Your task to perform on an android device: make emails show in primary in the gmail app Image 0: 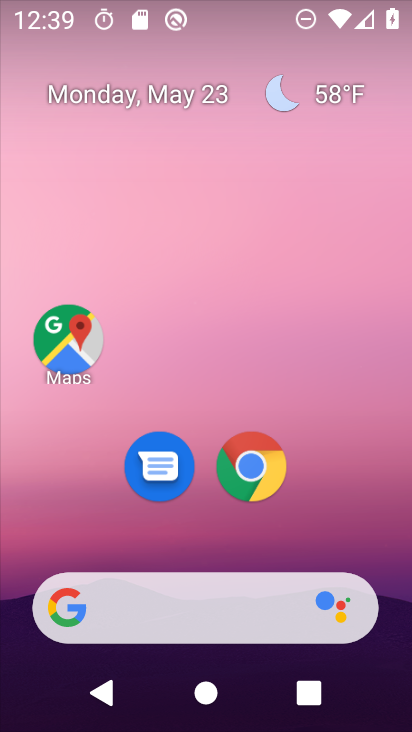
Step 0: drag from (205, 547) to (170, 93)
Your task to perform on an android device: make emails show in primary in the gmail app Image 1: 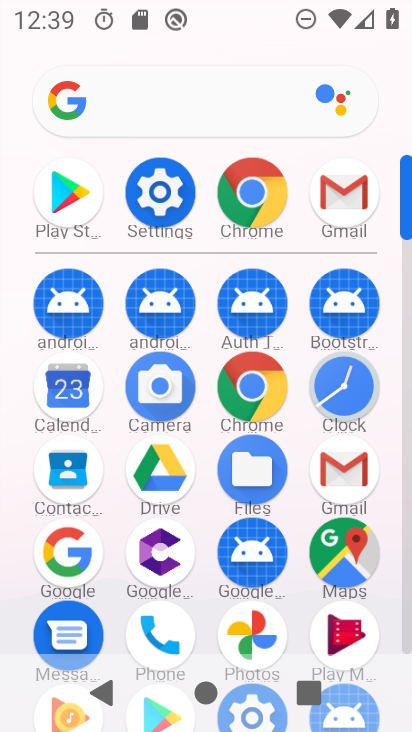
Step 1: click (338, 198)
Your task to perform on an android device: make emails show in primary in the gmail app Image 2: 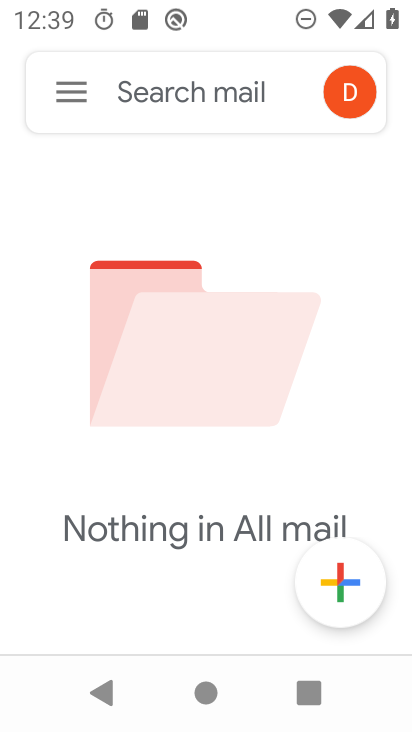
Step 2: click (52, 99)
Your task to perform on an android device: make emails show in primary in the gmail app Image 3: 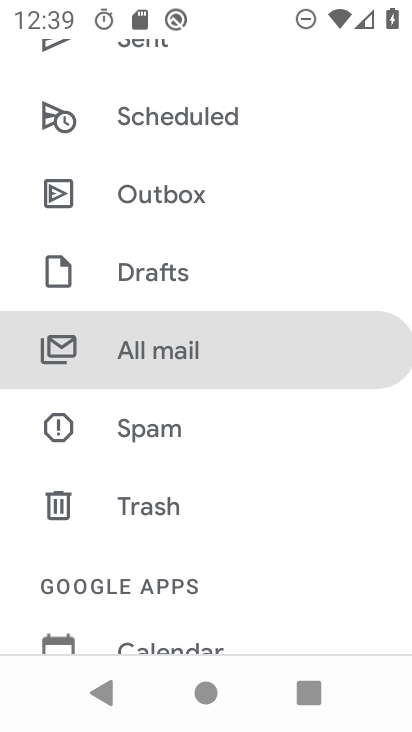
Step 3: drag from (209, 580) to (233, 33)
Your task to perform on an android device: make emails show in primary in the gmail app Image 4: 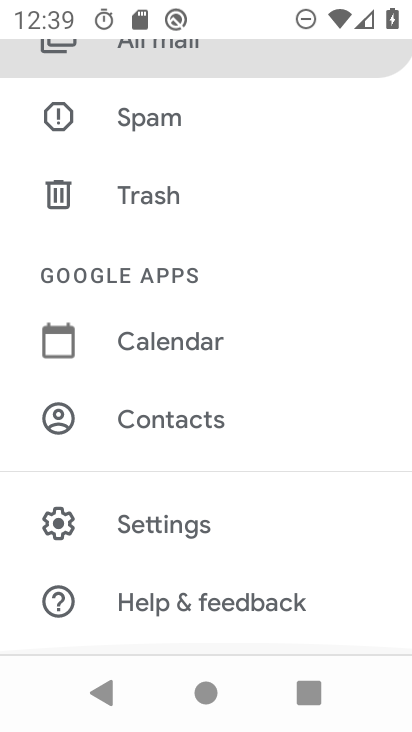
Step 4: click (180, 509)
Your task to perform on an android device: make emails show in primary in the gmail app Image 5: 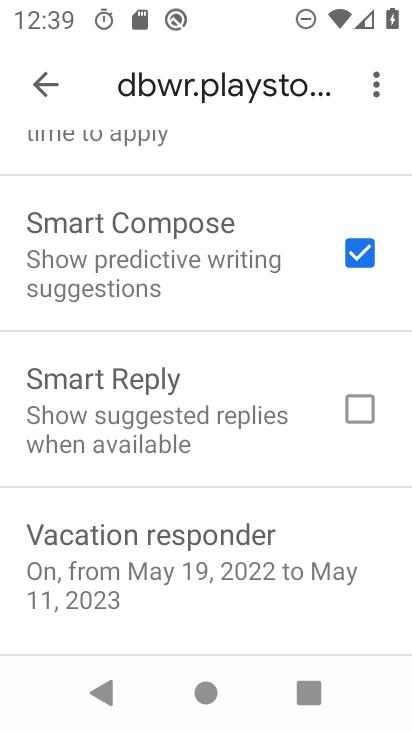
Step 5: drag from (224, 412) to (203, 654)
Your task to perform on an android device: make emails show in primary in the gmail app Image 6: 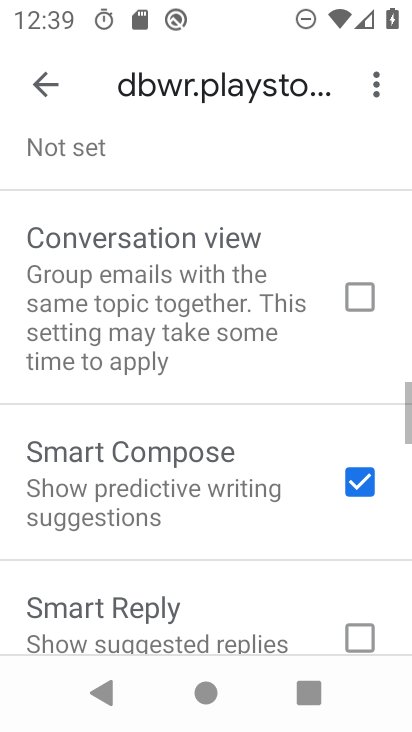
Step 6: drag from (144, 199) to (183, 632)
Your task to perform on an android device: make emails show in primary in the gmail app Image 7: 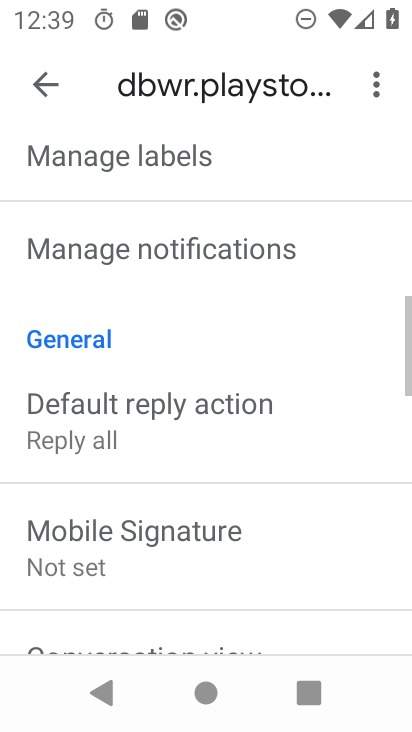
Step 7: drag from (134, 201) to (170, 621)
Your task to perform on an android device: make emails show in primary in the gmail app Image 8: 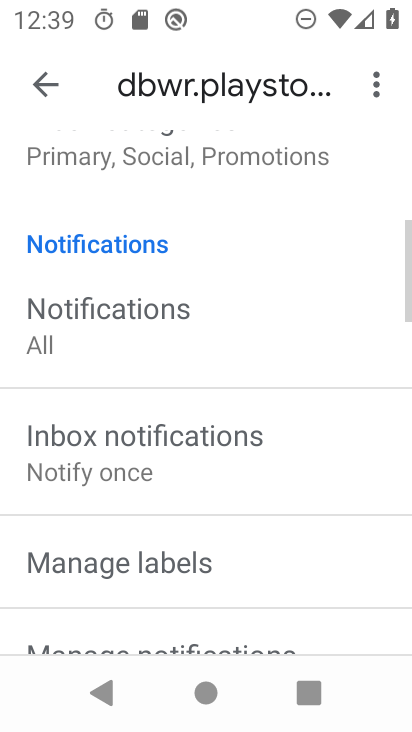
Step 8: drag from (102, 206) to (132, 460)
Your task to perform on an android device: make emails show in primary in the gmail app Image 9: 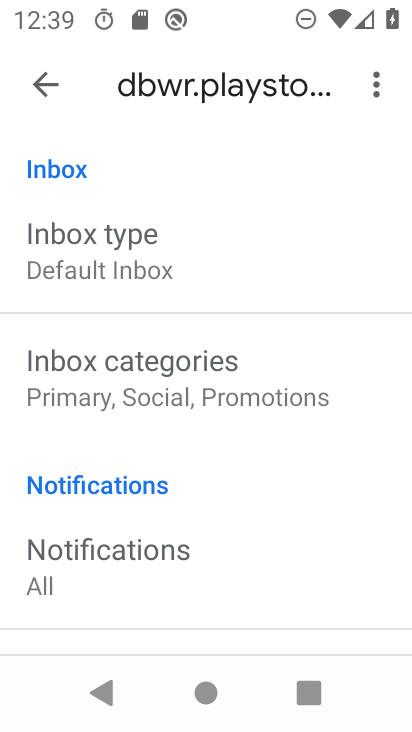
Step 9: click (169, 380)
Your task to perform on an android device: make emails show in primary in the gmail app Image 10: 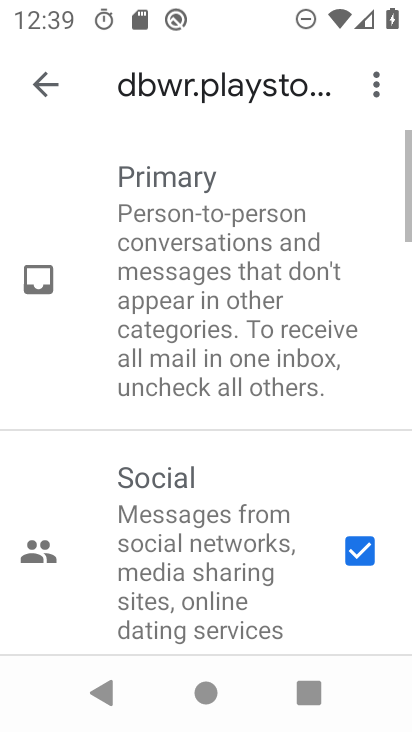
Step 10: click (361, 515)
Your task to perform on an android device: make emails show in primary in the gmail app Image 11: 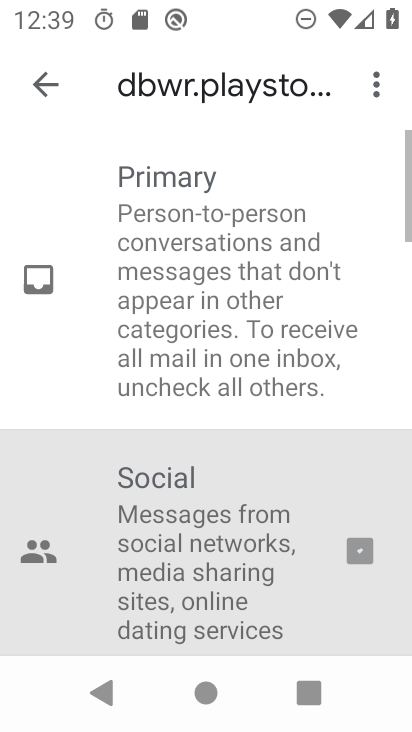
Step 11: drag from (308, 425) to (295, 155)
Your task to perform on an android device: make emails show in primary in the gmail app Image 12: 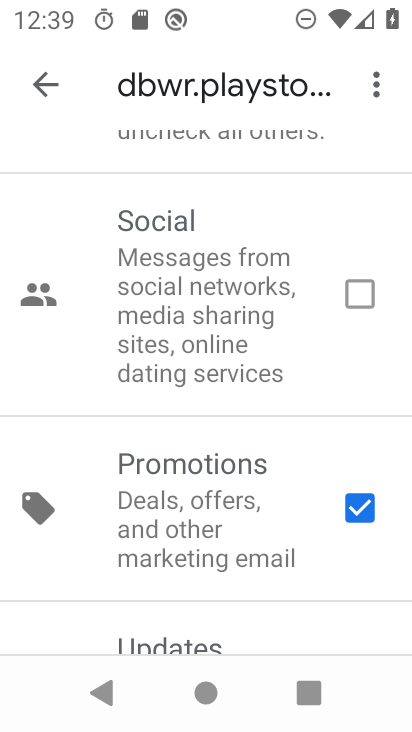
Step 12: click (355, 502)
Your task to perform on an android device: make emails show in primary in the gmail app Image 13: 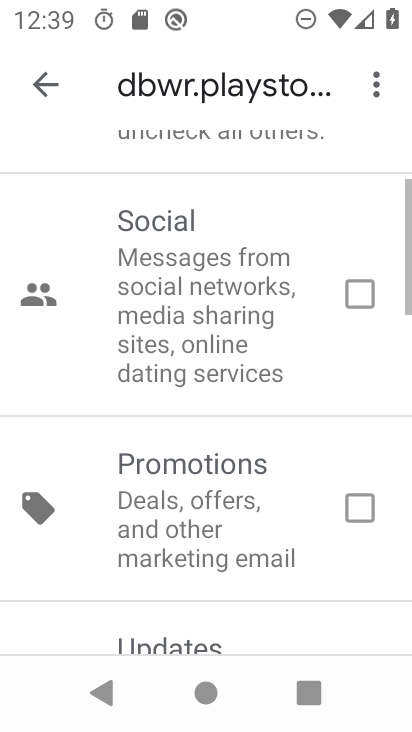
Step 13: task complete